Your task to perform on an android device: Go to battery settings Image 0: 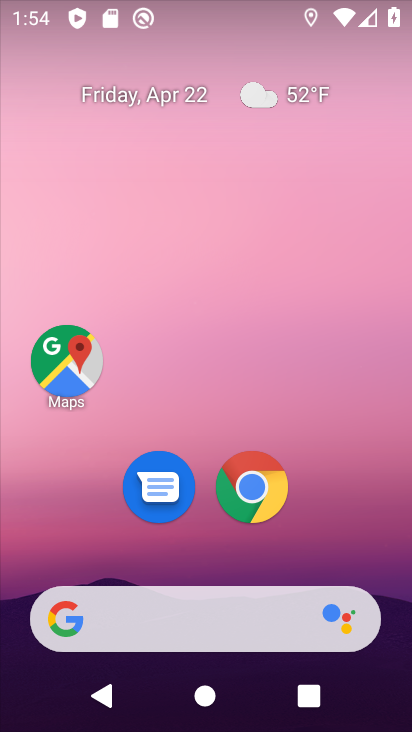
Step 0: drag from (213, 568) to (306, 0)
Your task to perform on an android device: Go to battery settings Image 1: 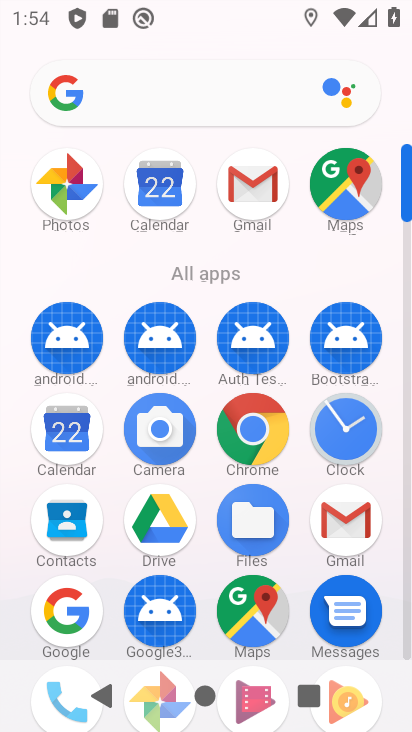
Step 1: drag from (222, 466) to (223, 84)
Your task to perform on an android device: Go to battery settings Image 2: 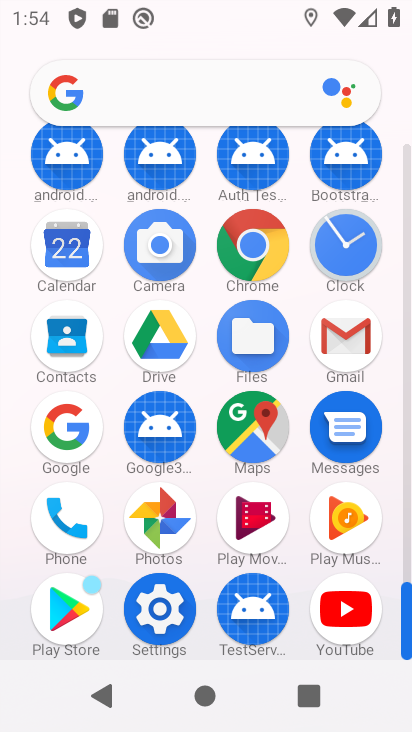
Step 2: click (154, 618)
Your task to perform on an android device: Go to battery settings Image 3: 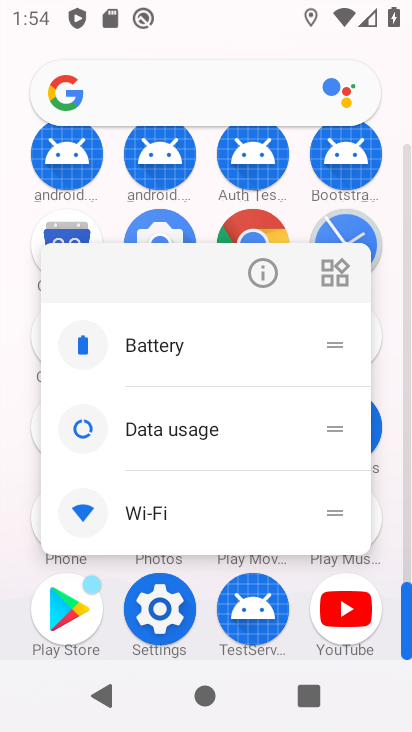
Step 3: click (154, 630)
Your task to perform on an android device: Go to battery settings Image 4: 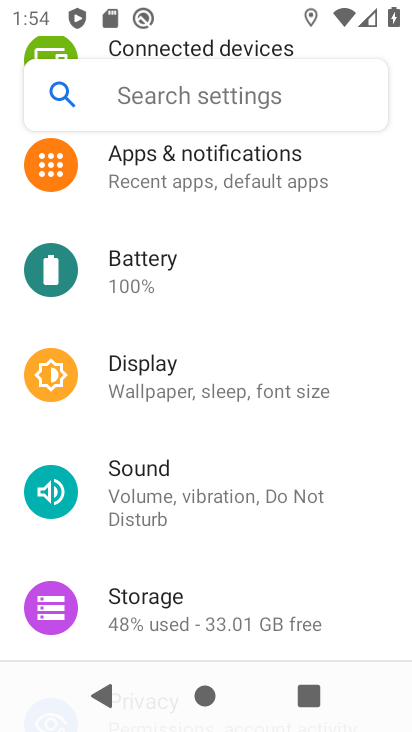
Step 4: click (164, 267)
Your task to perform on an android device: Go to battery settings Image 5: 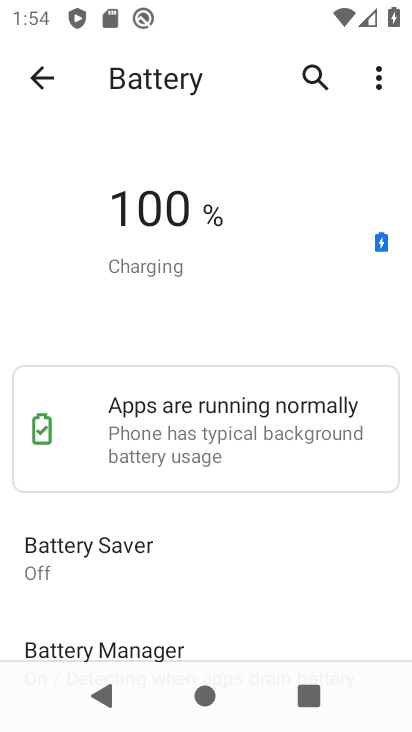
Step 5: task complete